Your task to perform on an android device: Open network settings Image 0: 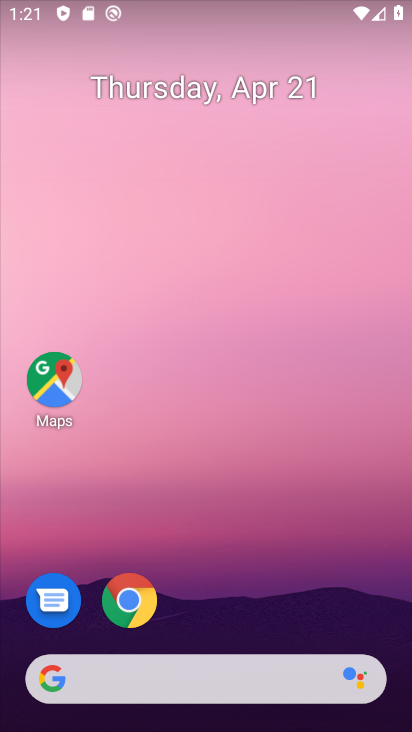
Step 0: drag from (275, 448) to (283, 214)
Your task to perform on an android device: Open network settings Image 1: 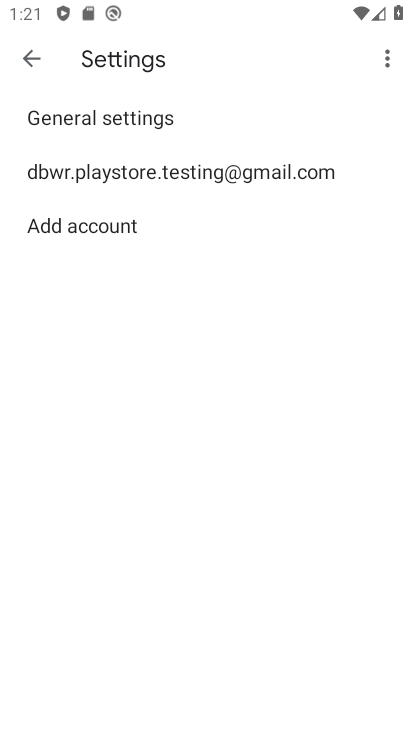
Step 1: press home button
Your task to perform on an android device: Open network settings Image 2: 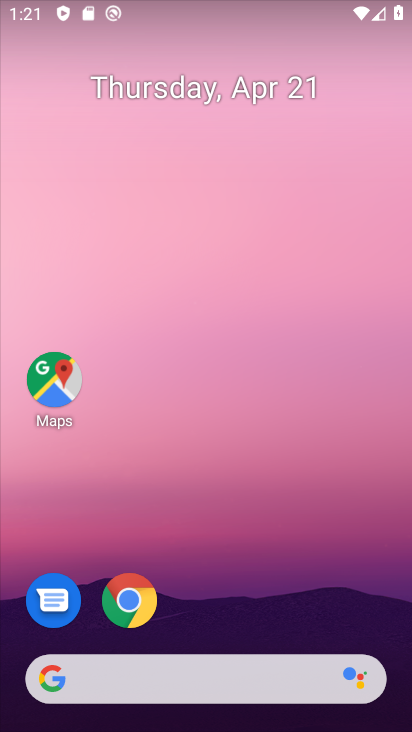
Step 2: drag from (252, 506) to (278, 120)
Your task to perform on an android device: Open network settings Image 3: 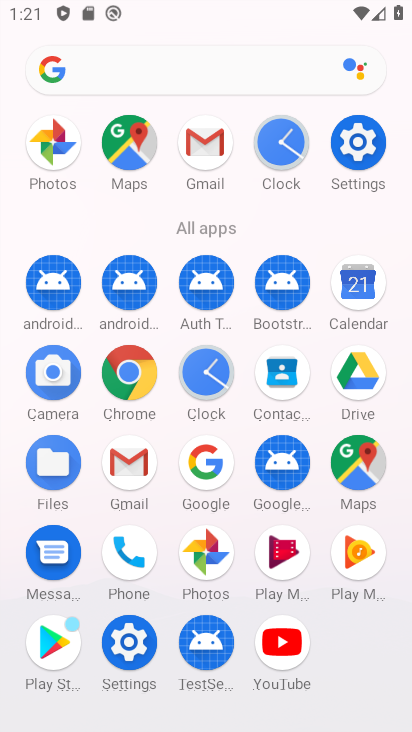
Step 3: click (369, 150)
Your task to perform on an android device: Open network settings Image 4: 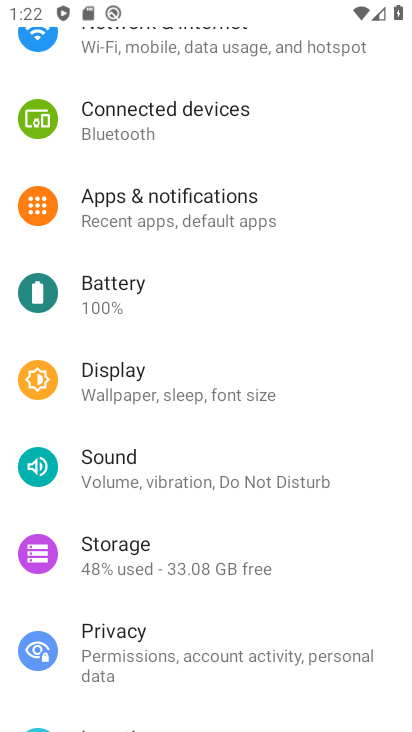
Step 4: drag from (317, 146) to (304, 423)
Your task to perform on an android device: Open network settings Image 5: 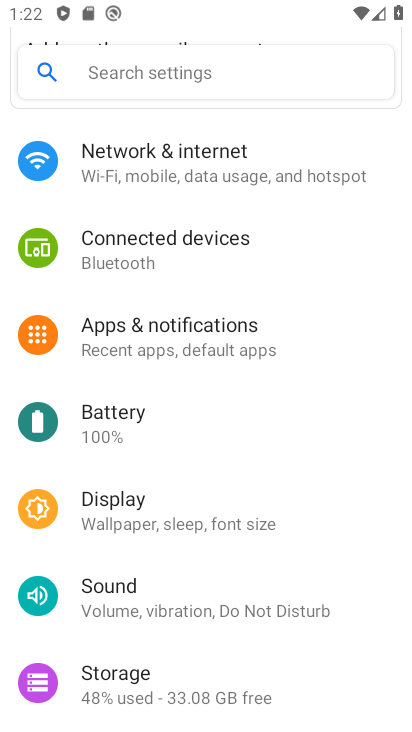
Step 5: click (258, 168)
Your task to perform on an android device: Open network settings Image 6: 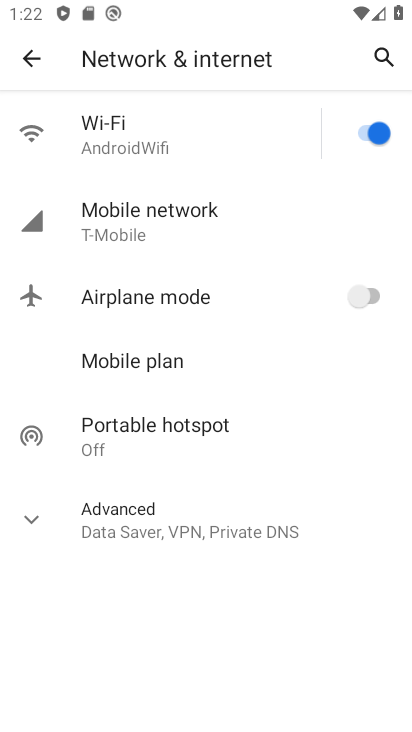
Step 6: task complete